Your task to perform on an android device: clear history in the chrome app Image 0: 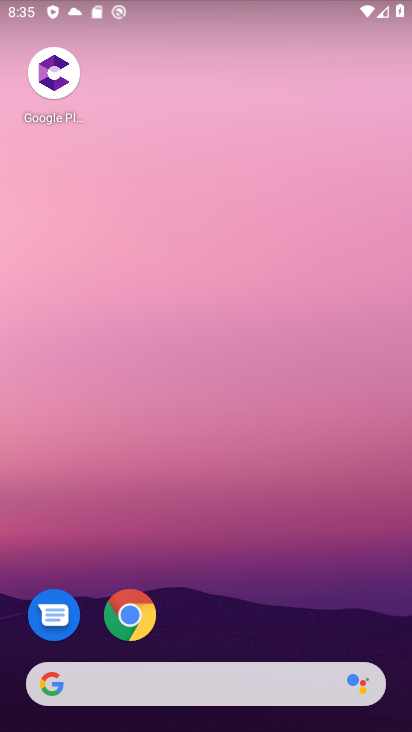
Step 0: click (141, 644)
Your task to perform on an android device: clear history in the chrome app Image 1: 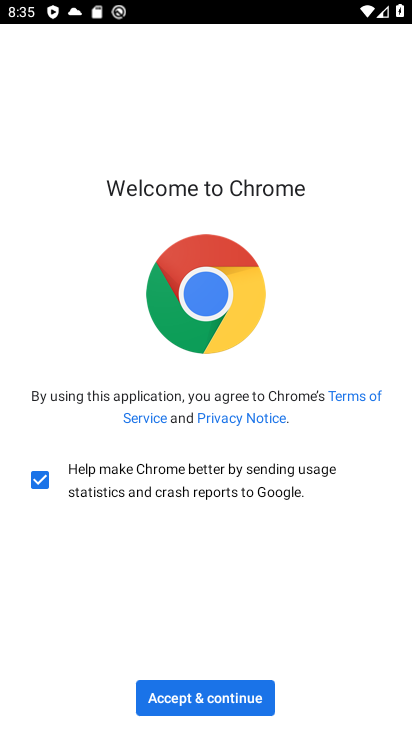
Step 1: click (189, 697)
Your task to perform on an android device: clear history in the chrome app Image 2: 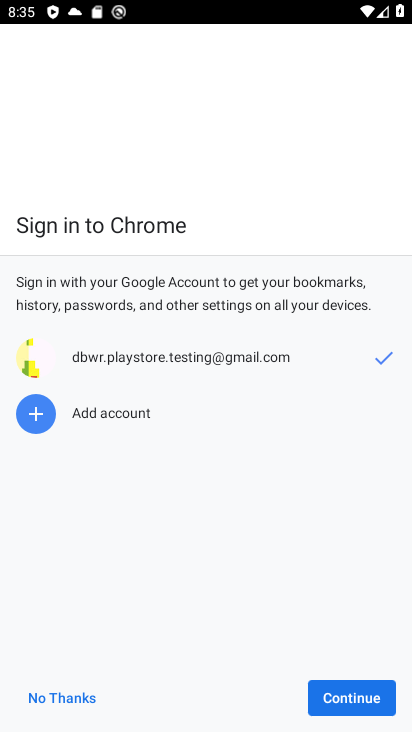
Step 2: click (335, 699)
Your task to perform on an android device: clear history in the chrome app Image 3: 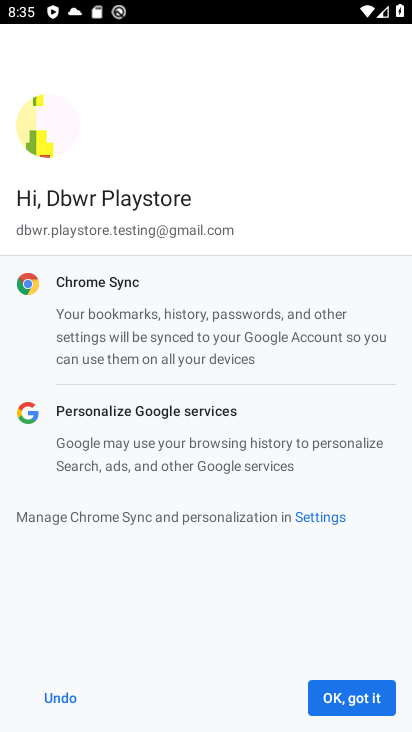
Step 3: click (335, 699)
Your task to perform on an android device: clear history in the chrome app Image 4: 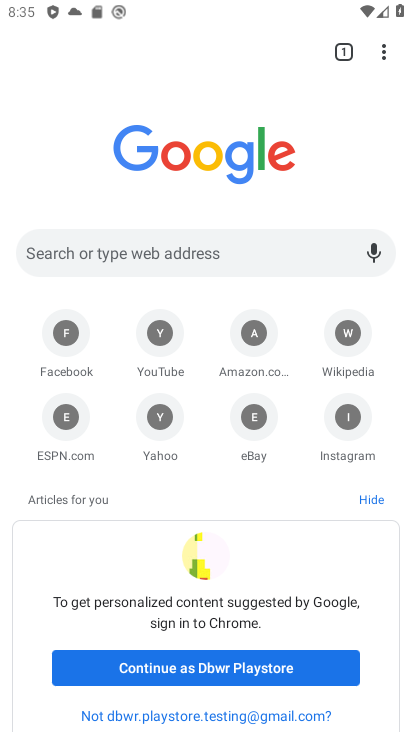
Step 4: click (386, 54)
Your task to perform on an android device: clear history in the chrome app Image 5: 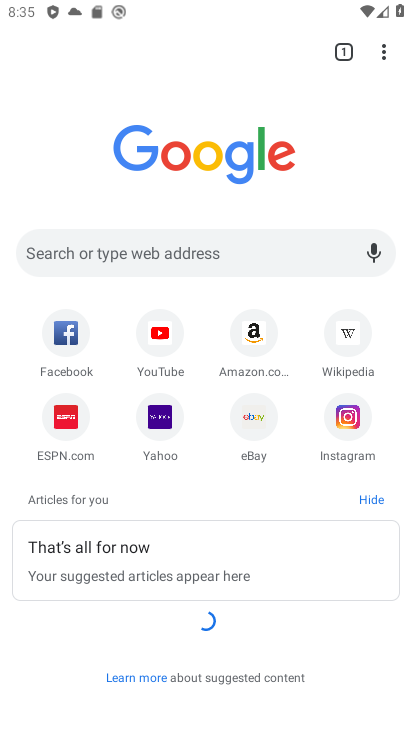
Step 5: click (388, 52)
Your task to perform on an android device: clear history in the chrome app Image 6: 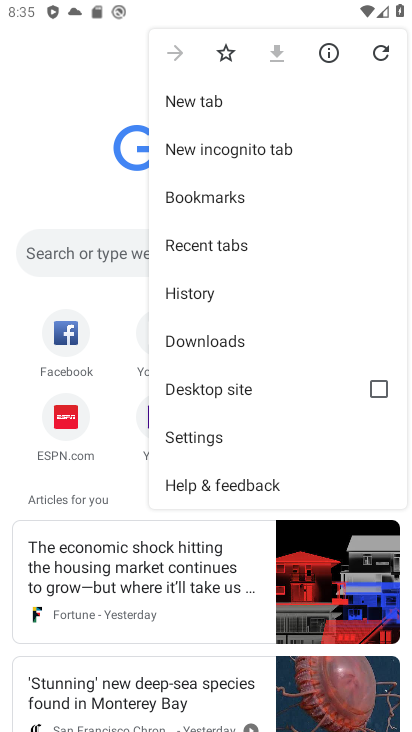
Step 6: click (183, 295)
Your task to perform on an android device: clear history in the chrome app Image 7: 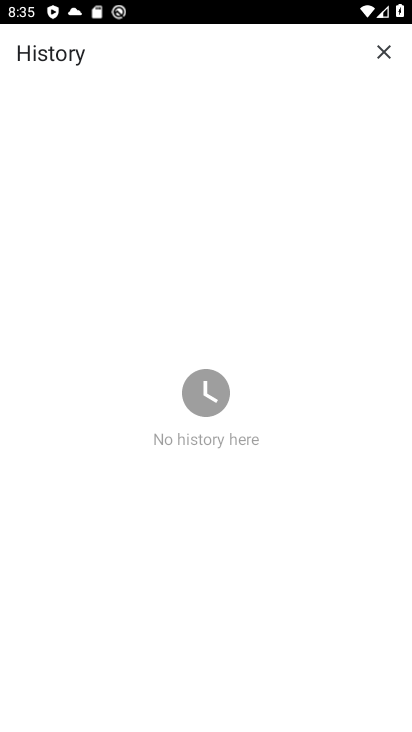
Step 7: task complete